Your task to perform on an android device: choose inbox layout in the gmail app Image 0: 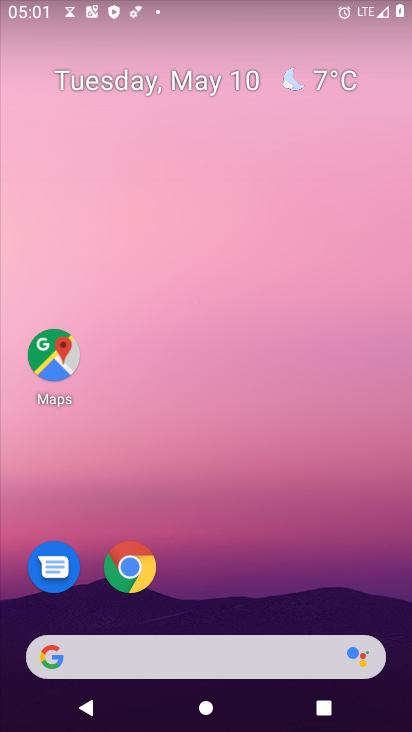
Step 0: drag from (229, 596) to (234, 71)
Your task to perform on an android device: choose inbox layout in the gmail app Image 1: 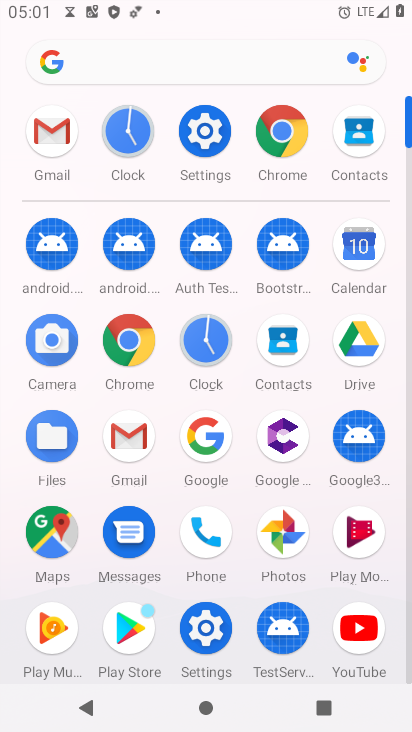
Step 1: click (46, 132)
Your task to perform on an android device: choose inbox layout in the gmail app Image 2: 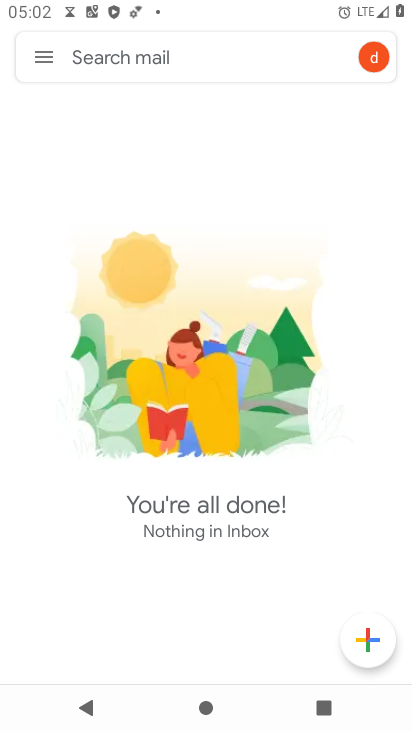
Step 2: click (39, 58)
Your task to perform on an android device: choose inbox layout in the gmail app Image 3: 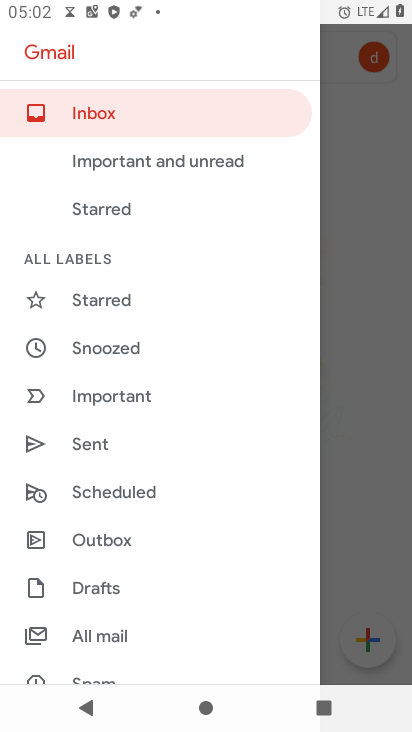
Step 3: drag from (163, 452) to (159, 332)
Your task to perform on an android device: choose inbox layout in the gmail app Image 4: 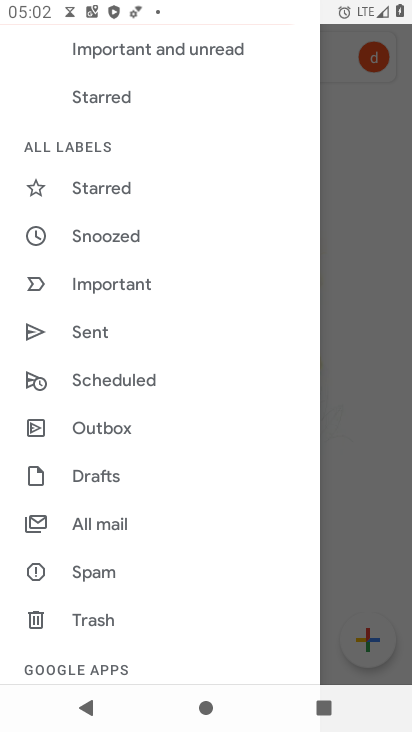
Step 4: drag from (155, 467) to (170, 333)
Your task to perform on an android device: choose inbox layout in the gmail app Image 5: 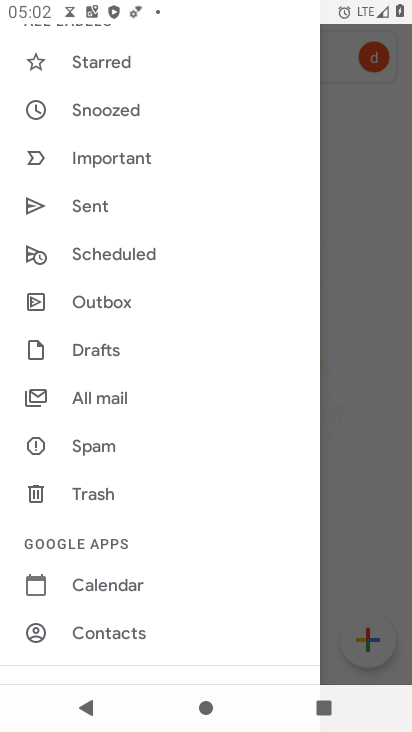
Step 5: drag from (157, 466) to (159, 341)
Your task to perform on an android device: choose inbox layout in the gmail app Image 6: 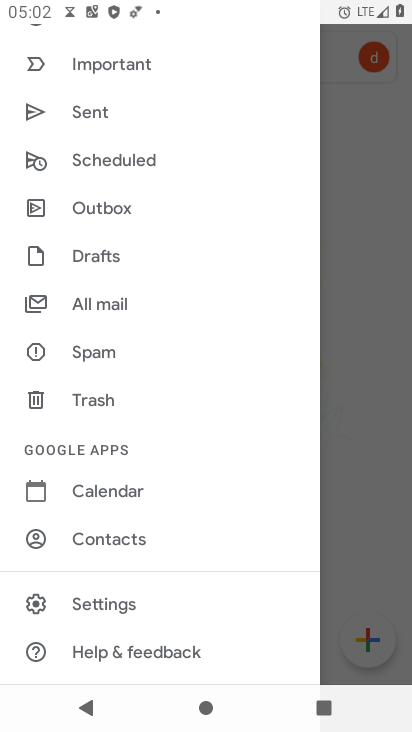
Step 6: click (122, 599)
Your task to perform on an android device: choose inbox layout in the gmail app Image 7: 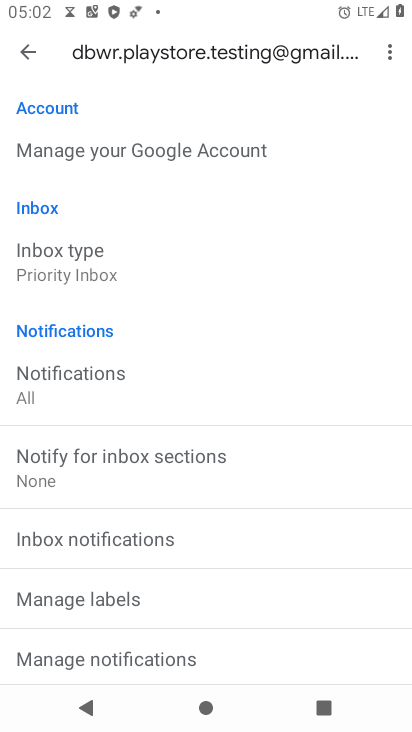
Step 7: click (73, 272)
Your task to perform on an android device: choose inbox layout in the gmail app Image 8: 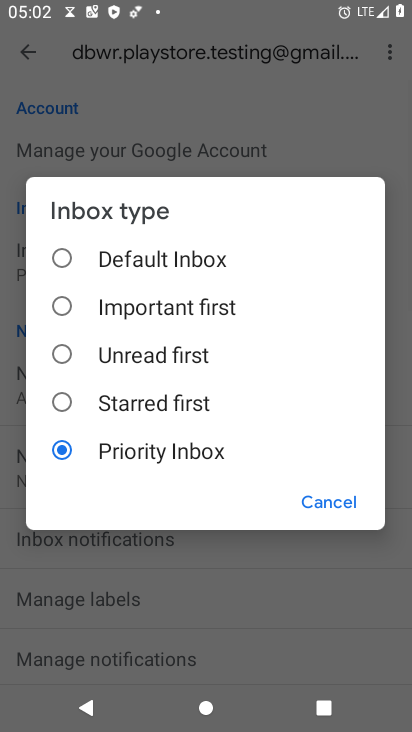
Step 8: click (64, 264)
Your task to perform on an android device: choose inbox layout in the gmail app Image 9: 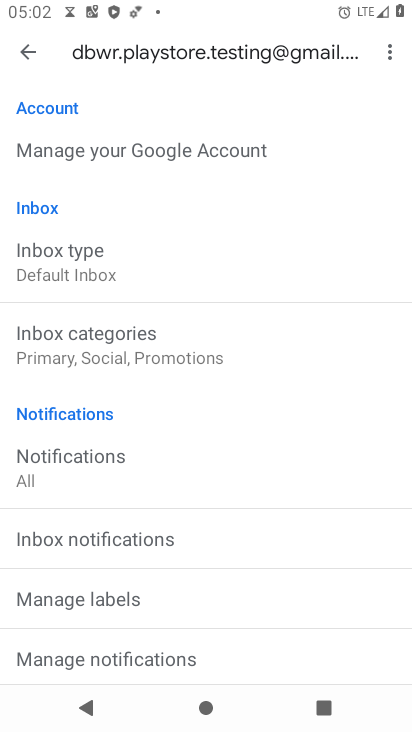
Step 9: task complete